Your task to perform on an android device: see creations saved in the google photos Image 0: 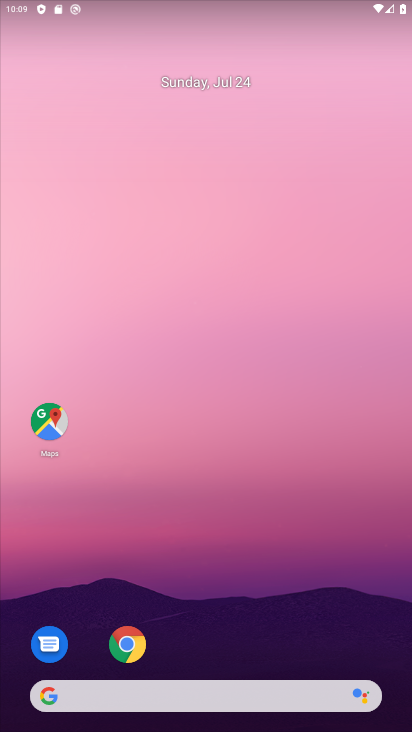
Step 0: drag from (292, 623) to (240, 37)
Your task to perform on an android device: see creations saved in the google photos Image 1: 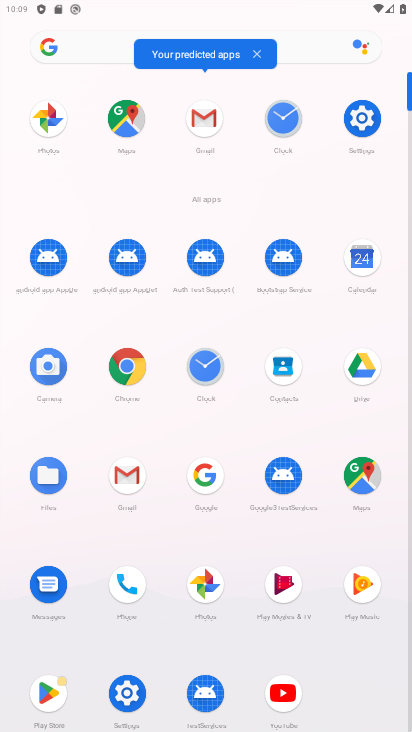
Step 1: click (48, 121)
Your task to perform on an android device: see creations saved in the google photos Image 2: 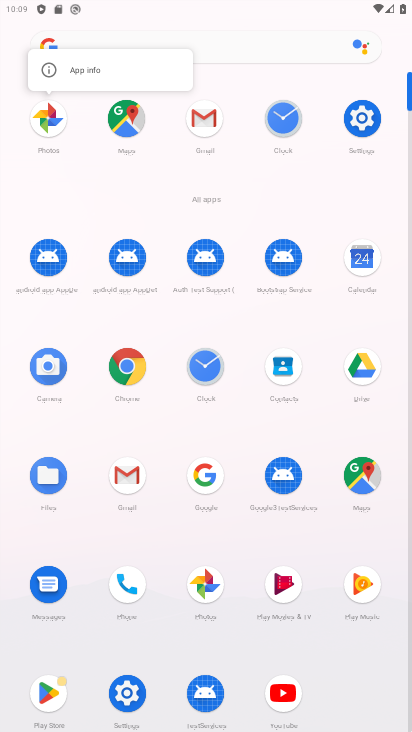
Step 2: click (48, 121)
Your task to perform on an android device: see creations saved in the google photos Image 3: 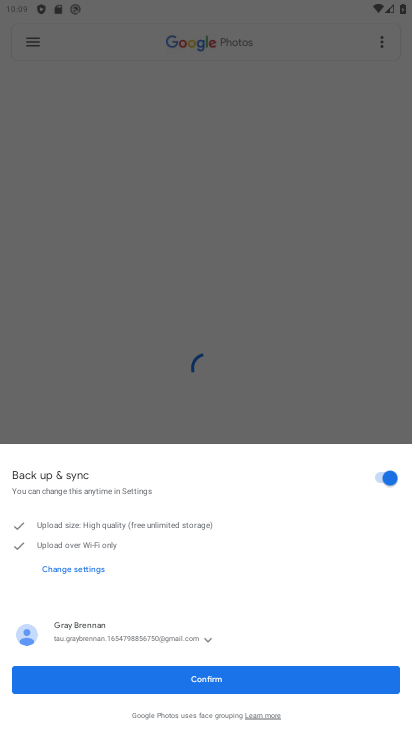
Step 3: click (146, 680)
Your task to perform on an android device: see creations saved in the google photos Image 4: 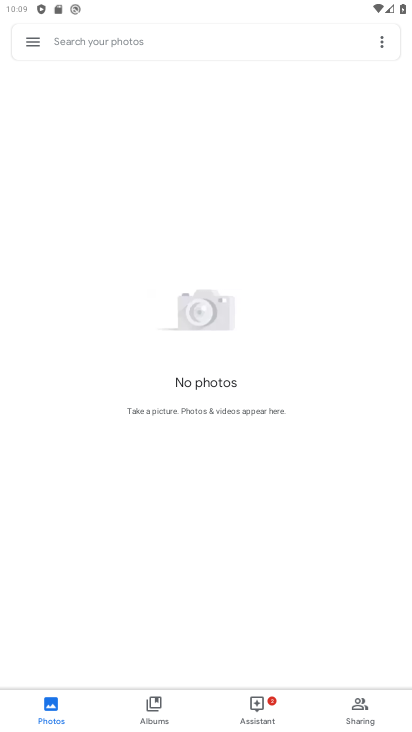
Step 4: click (116, 45)
Your task to perform on an android device: see creations saved in the google photos Image 5: 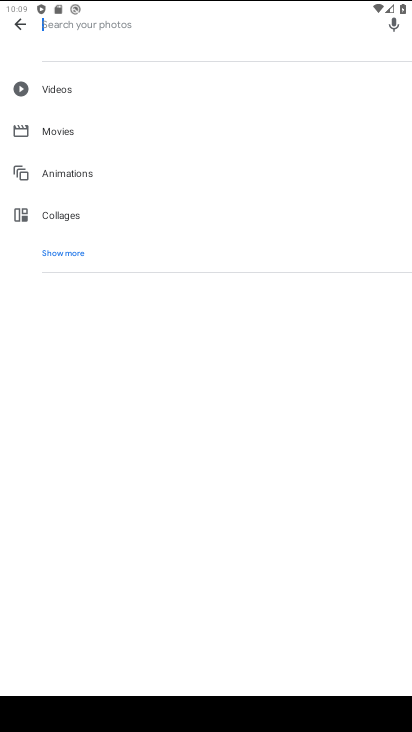
Step 5: click (41, 254)
Your task to perform on an android device: see creations saved in the google photos Image 6: 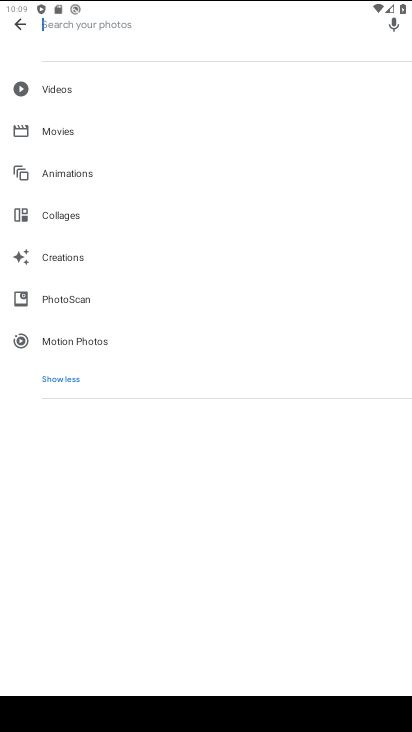
Step 6: click (54, 261)
Your task to perform on an android device: see creations saved in the google photos Image 7: 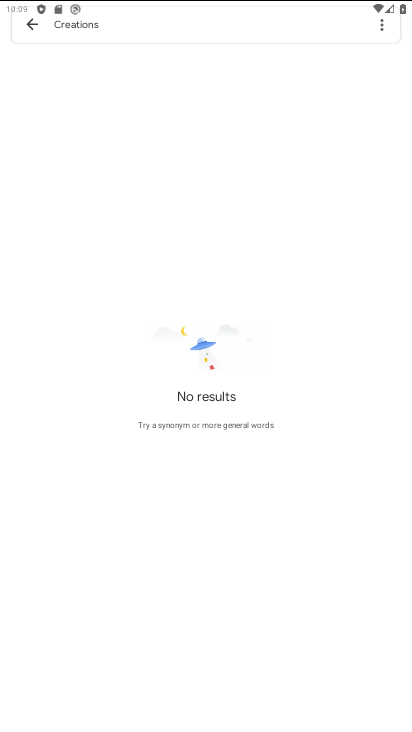
Step 7: task complete